Your task to perform on an android device: Open calendar and show me the fourth week of next month Image 0: 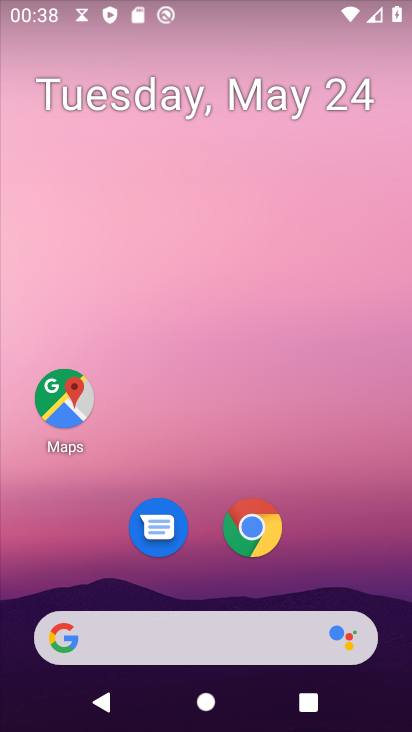
Step 0: press home button
Your task to perform on an android device: Open calendar and show me the fourth week of next month Image 1: 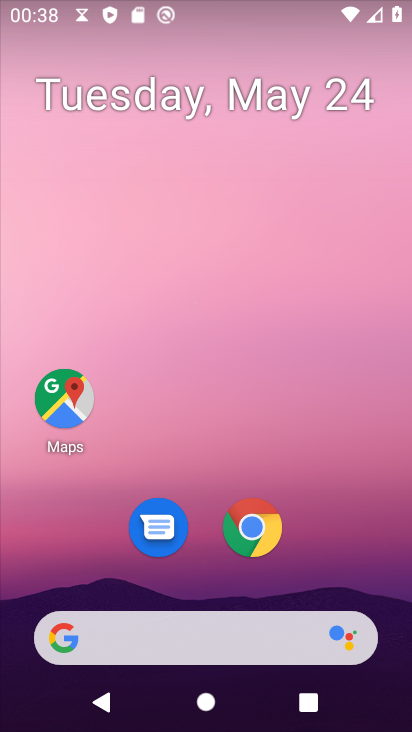
Step 1: drag from (129, 663) to (264, 223)
Your task to perform on an android device: Open calendar and show me the fourth week of next month Image 2: 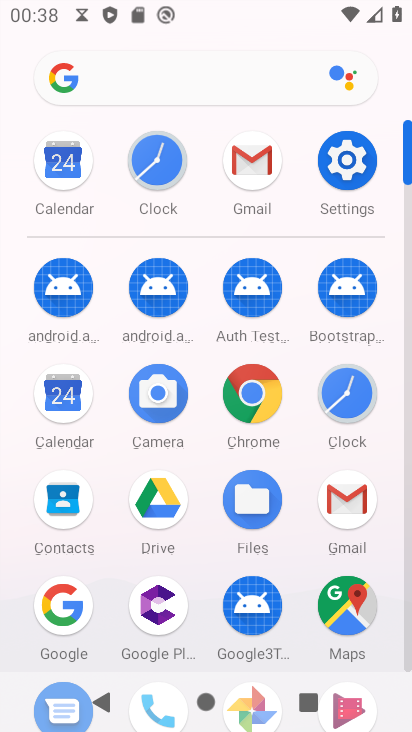
Step 2: click (52, 395)
Your task to perform on an android device: Open calendar and show me the fourth week of next month Image 3: 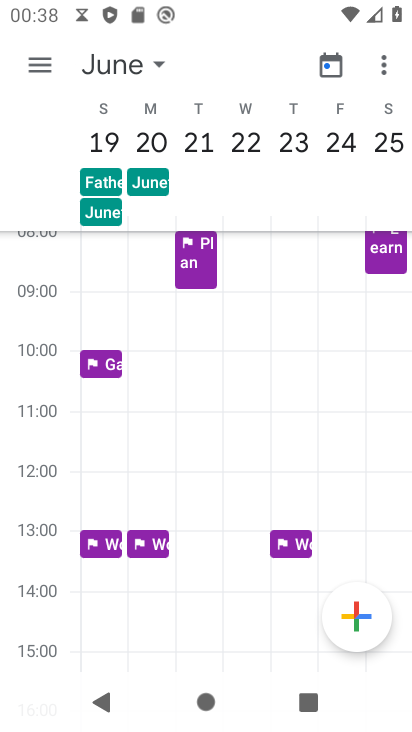
Step 3: task complete